Your task to perform on an android device: Go to notification settings Image 0: 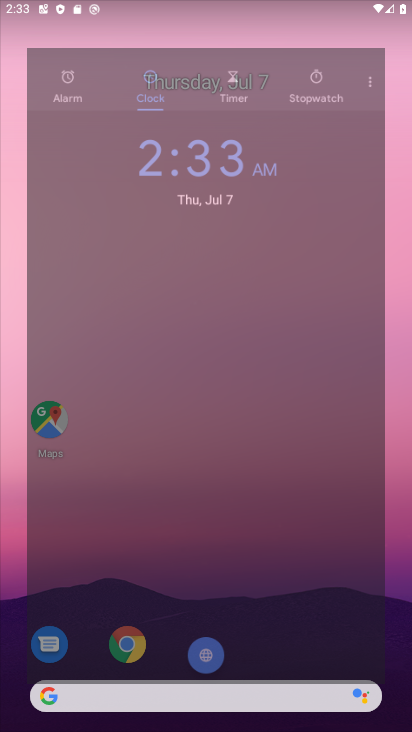
Step 0: press home button
Your task to perform on an android device: Go to notification settings Image 1: 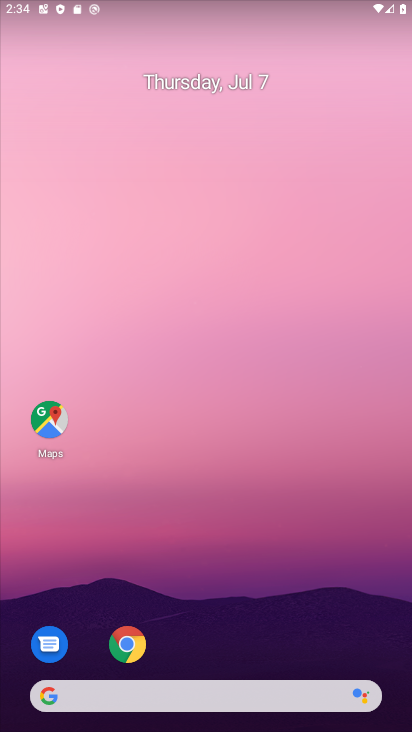
Step 1: press home button
Your task to perform on an android device: Go to notification settings Image 2: 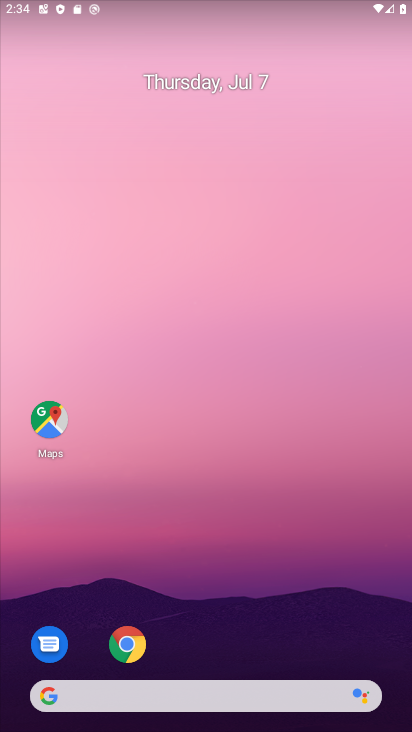
Step 2: drag from (228, 639) to (216, 126)
Your task to perform on an android device: Go to notification settings Image 3: 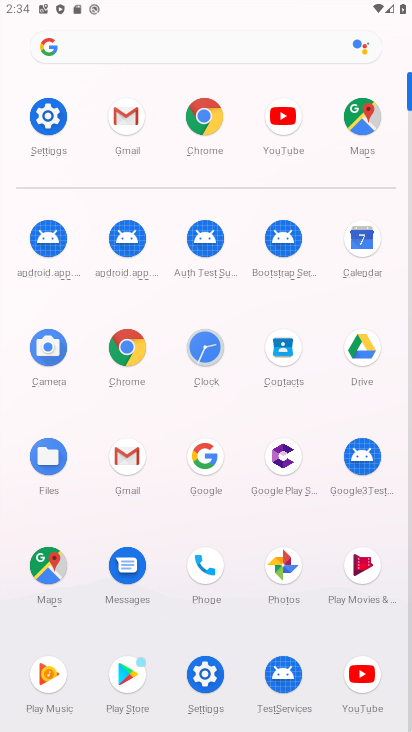
Step 3: click (42, 117)
Your task to perform on an android device: Go to notification settings Image 4: 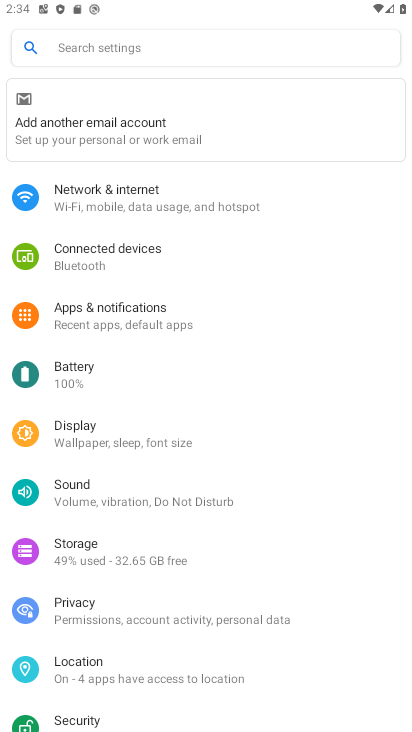
Step 4: click (108, 311)
Your task to perform on an android device: Go to notification settings Image 5: 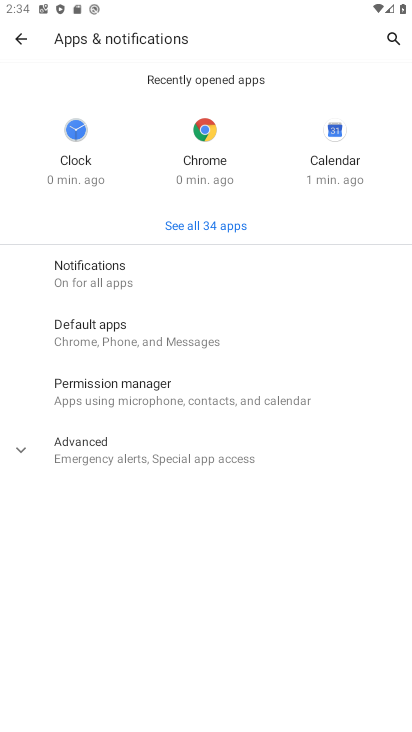
Step 5: click (91, 262)
Your task to perform on an android device: Go to notification settings Image 6: 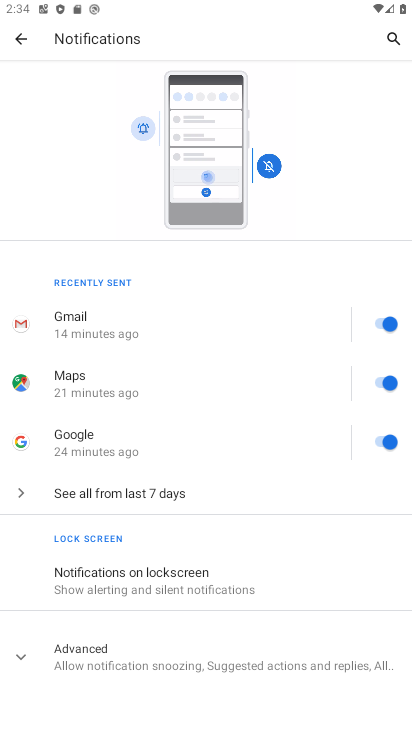
Step 6: task complete